Your task to perform on an android device: Check the weather Image 0: 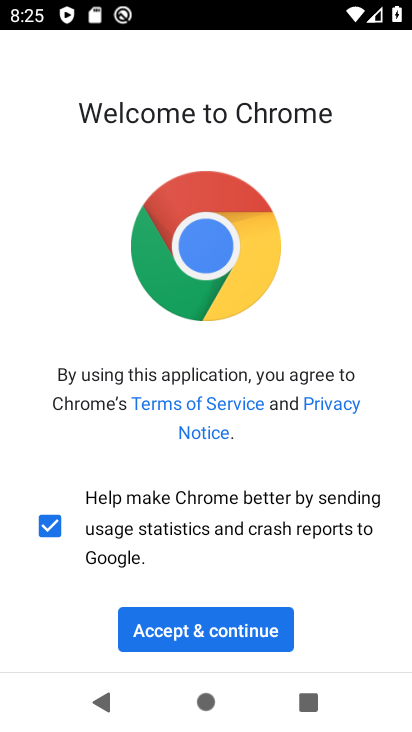
Step 0: click (155, 641)
Your task to perform on an android device: Check the weather Image 1: 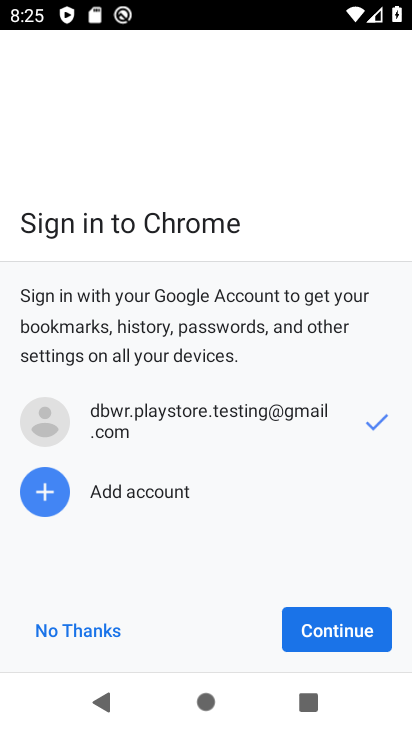
Step 1: click (370, 620)
Your task to perform on an android device: Check the weather Image 2: 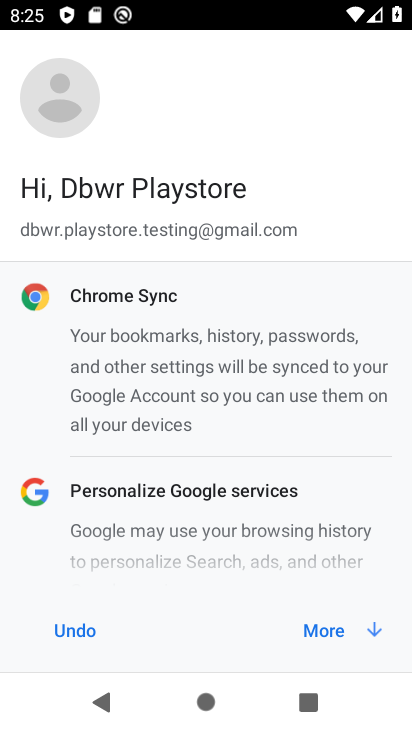
Step 2: click (370, 620)
Your task to perform on an android device: Check the weather Image 3: 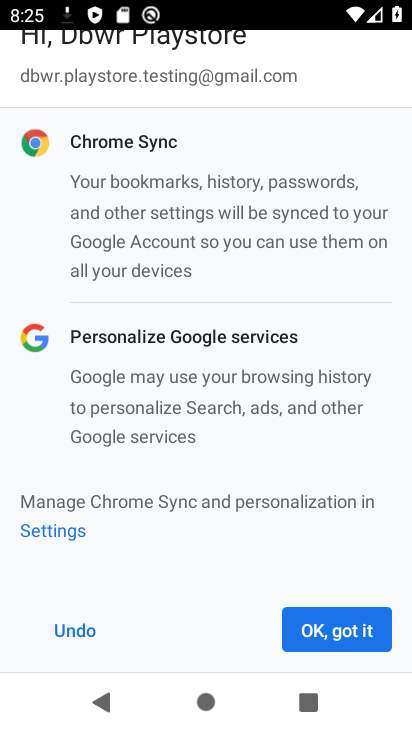
Step 3: click (370, 620)
Your task to perform on an android device: Check the weather Image 4: 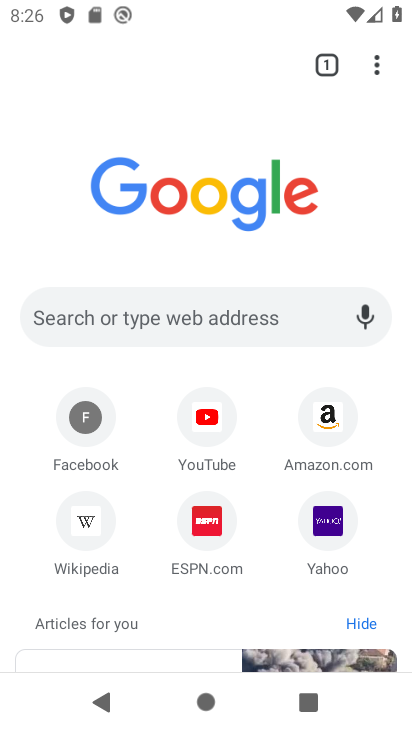
Step 4: click (121, 329)
Your task to perform on an android device: Check the weather Image 5: 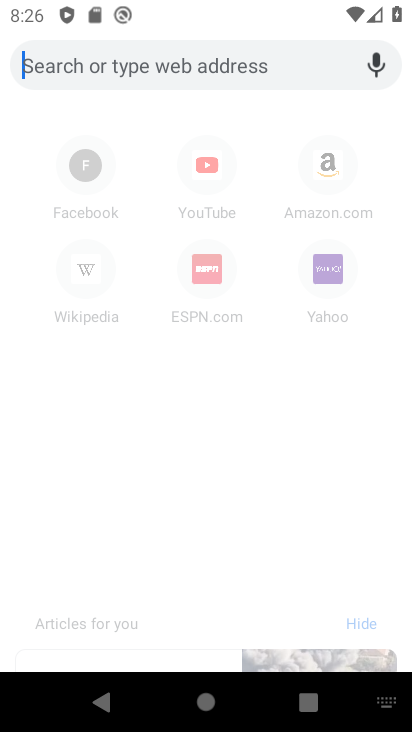
Step 5: type "weather"
Your task to perform on an android device: Check the weather Image 6: 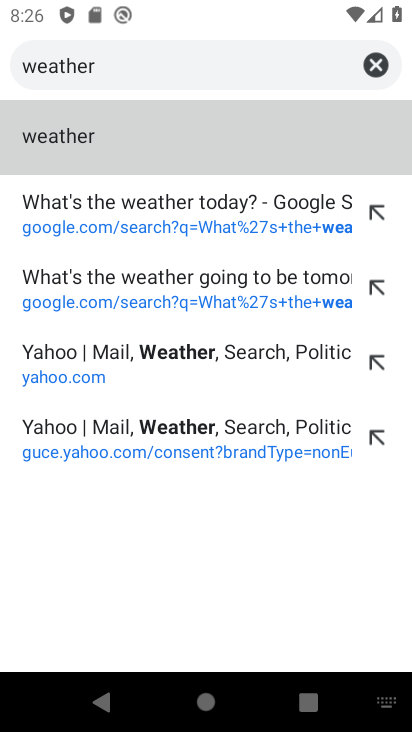
Step 6: click (234, 138)
Your task to perform on an android device: Check the weather Image 7: 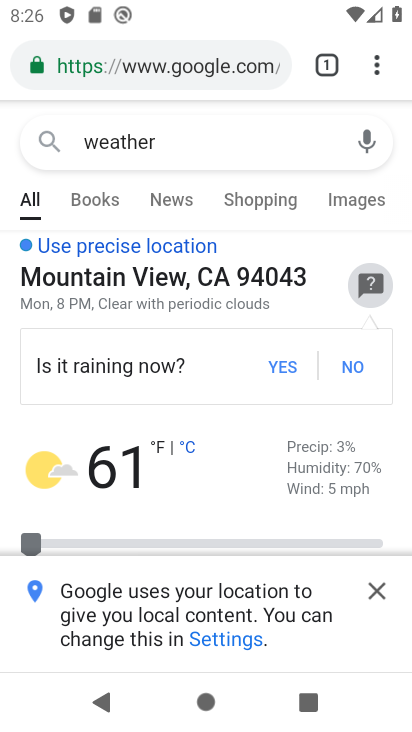
Step 7: task complete